Your task to perform on an android device: Go to Android settings Image 0: 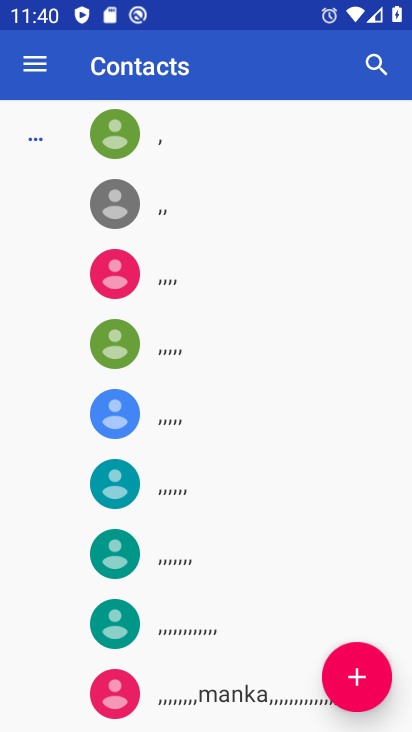
Step 0: press home button
Your task to perform on an android device: Go to Android settings Image 1: 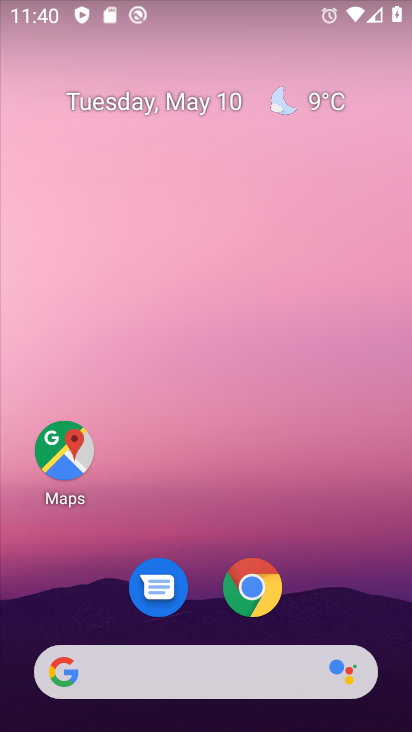
Step 1: drag from (357, 604) to (328, 12)
Your task to perform on an android device: Go to Android settings Image 2: 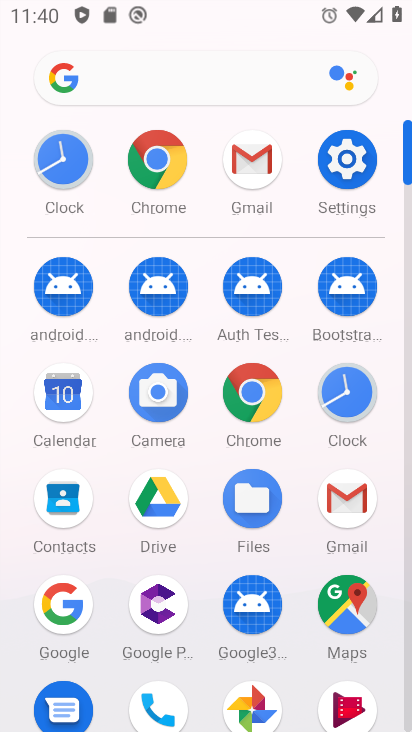
Step 2: click (349, 170)
Your task to perform on an android device: Go to Android settings Image 3: 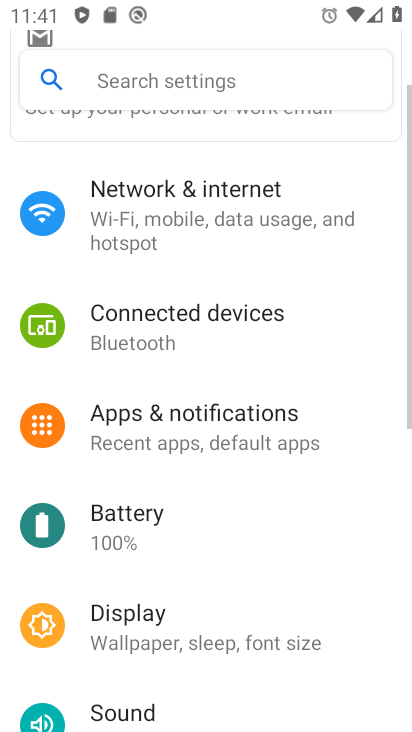
Step 3: task complete